Your task to perform on an android device: Open location settings Image 0: 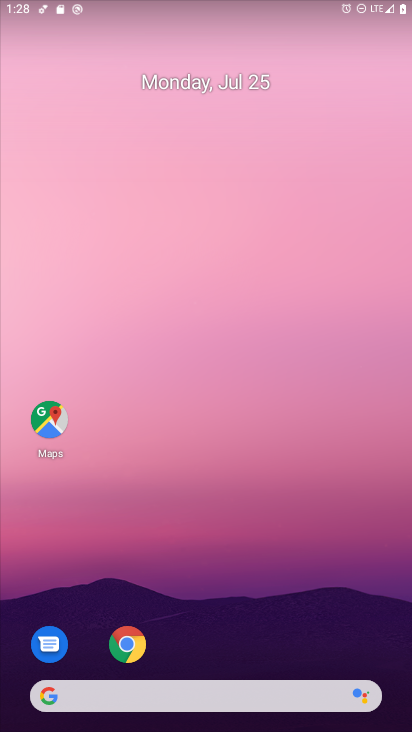
Step 0: drag from (283, 622) to (403, 14)
Your task to perform on an android device: Open location settings Image 1: 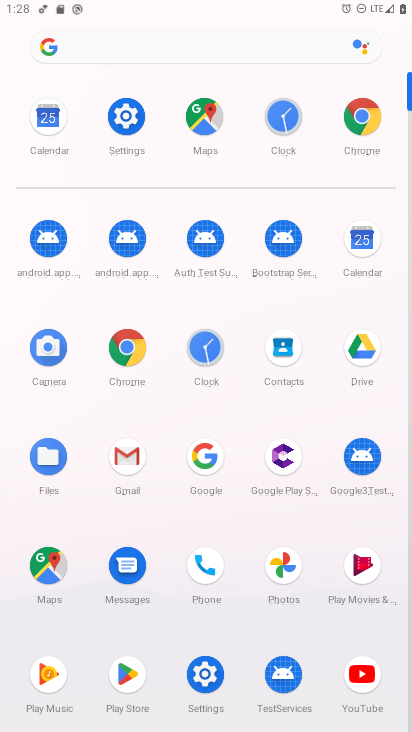
Step 1: click (126, 126)
Your task to perform on an android device: Open location settings Image 2: 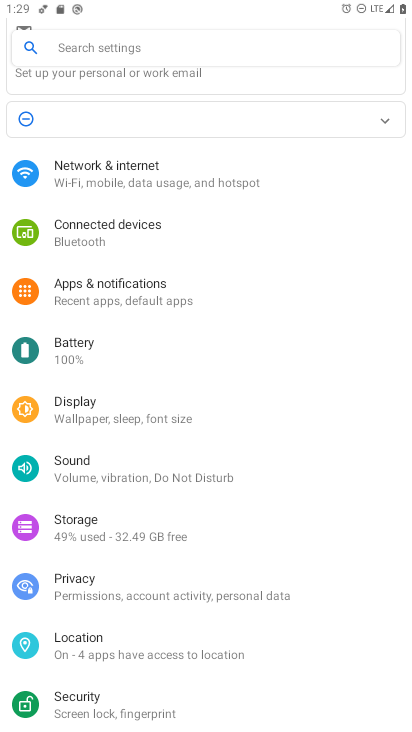
Step 2: click (80, 637)
Your task to perform on an android device: Open location settings Image 3: 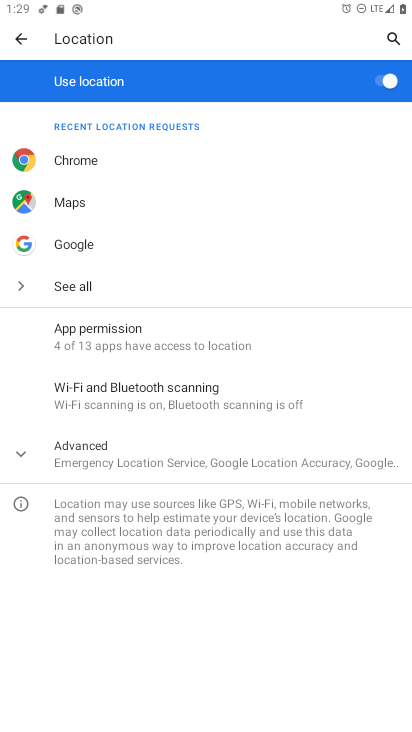
Step 3: task complete